Your task to perform on an android device: set the timer Image 0: 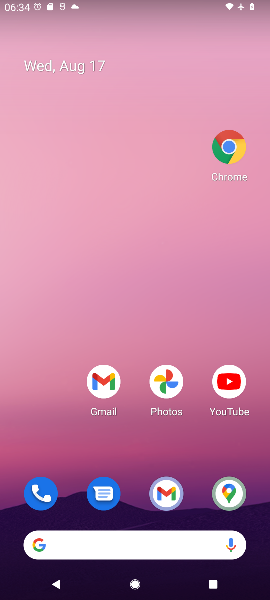
Step 0: press home button
Your task to perform on an android device: set the timer Image 1: 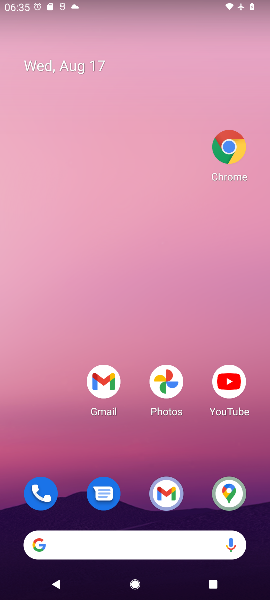
Step 1: drag from (147, 515) to (200, 6)
Your task to perform on an android device: set the timer Image 2: 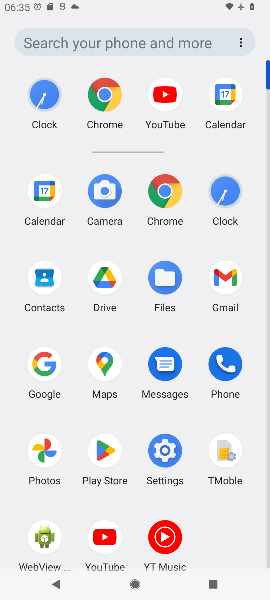
Step 2: click (225, 190)
Your task to perform on an android device: set the timer Image 3: 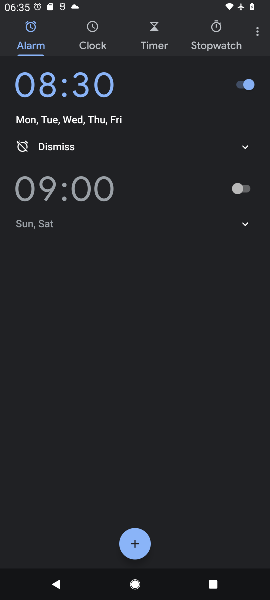
Step 3: click (159, 28)
Your task to perform on an android device: set the timer Image 4: 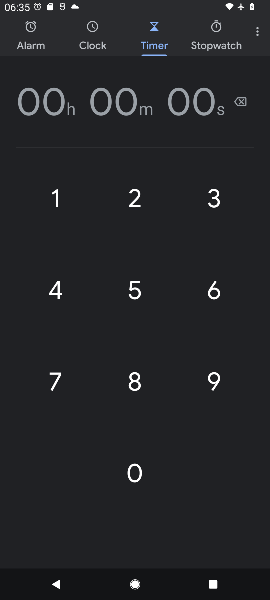
Step 4: click (146, 208)
Your task to perform on an android device: set the timer Image 5: 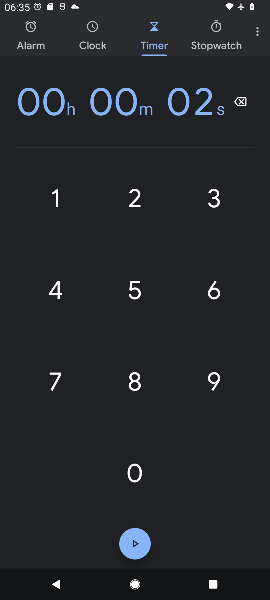
Step 5: click (133, 293)
Your task to perform on an android device: set the timer Image 6: 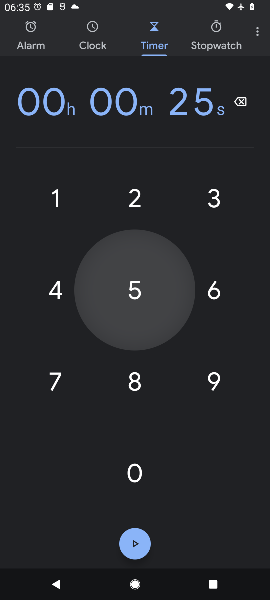
Step 6: click (52, 295)
Your task to perform on an android device: set the timer Image 7: 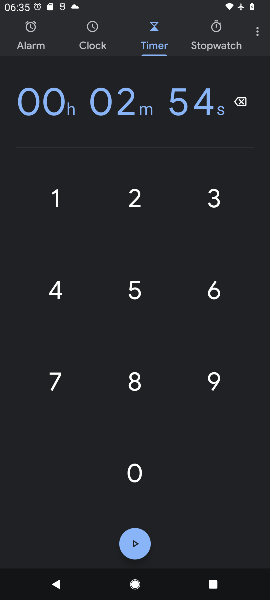
Step 7: click (61, 190)
Your task to perform on an android device: set the timer Image 8: 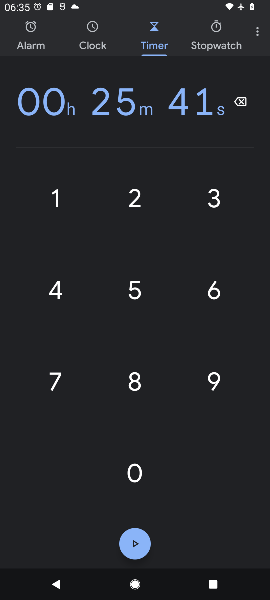
Step 8: click (136, 201)
Your task to perform on an android device: set the timer Image 9: 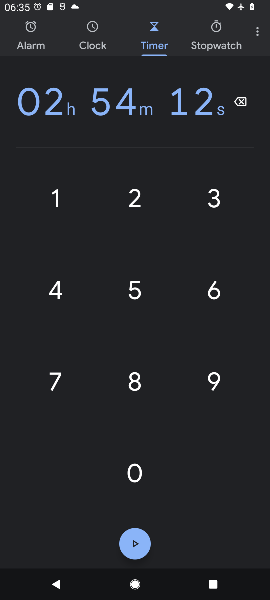
Step 9: click (201, 367)
Your task to perform on an android device: set the timer Image 10: 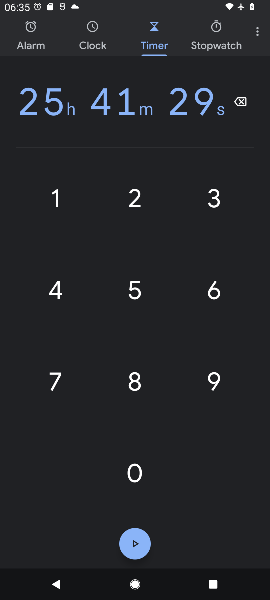
Step 10: click (211, 286)
Your task to perform on an android device: set the timer Image 11: 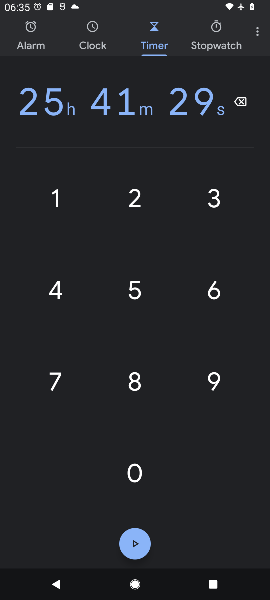
Step 11: click (134, 548)
Your task to perform on an android device: set the timer Image 12: 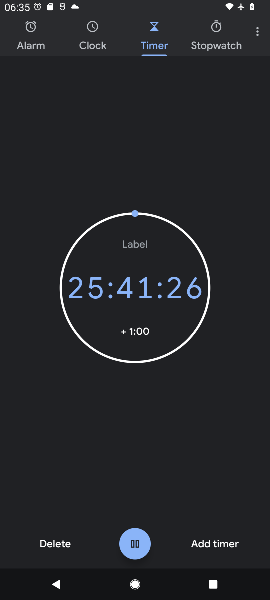
Step 12: task complete